Your task to perform on an android device: Turn off the flashlight Image 0: 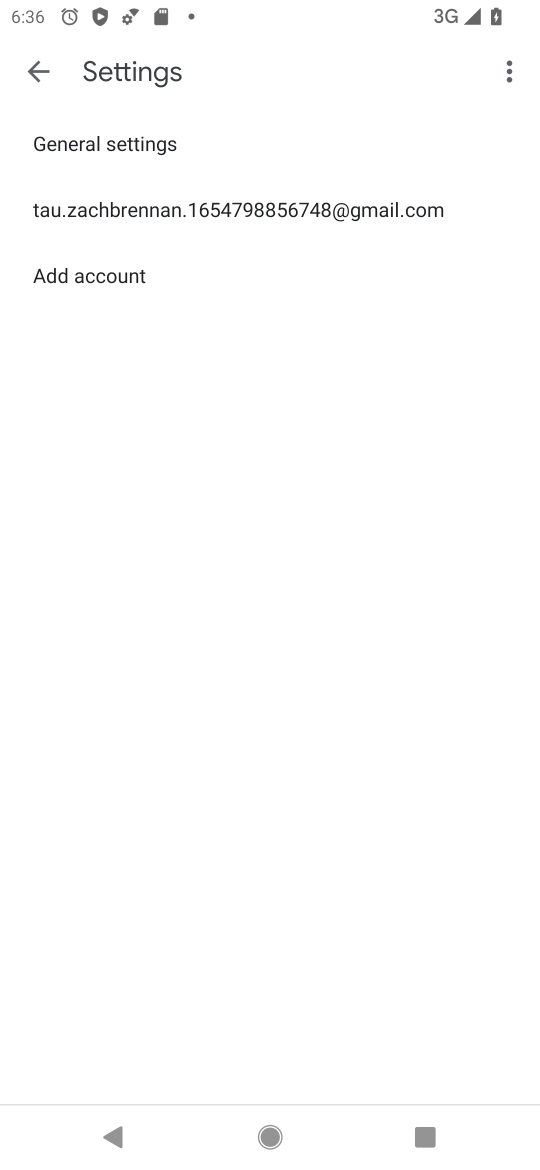
Step 0: task impossible